Your task to perform on an android device: turn on the 24-hour format for clock Image 0: 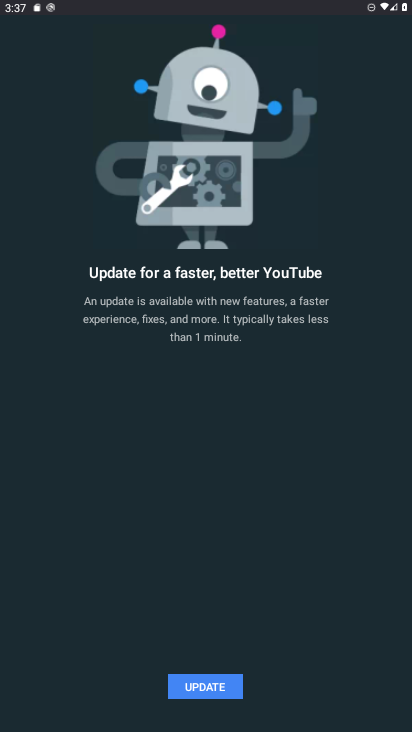
Step 0: press home button
Your task to perform on an android device: turn on the 24-hour format for clock Image 1: 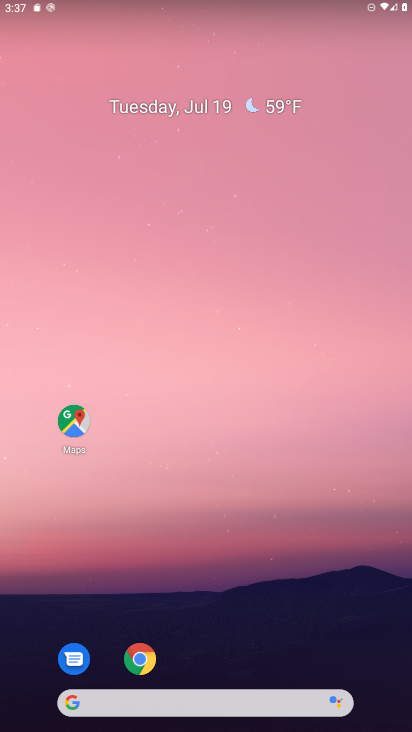
Step 1: drag from (216, 702) to (231, 181)
Your task to perform on an android device: turn on the 24-hour format for clock Image 2: 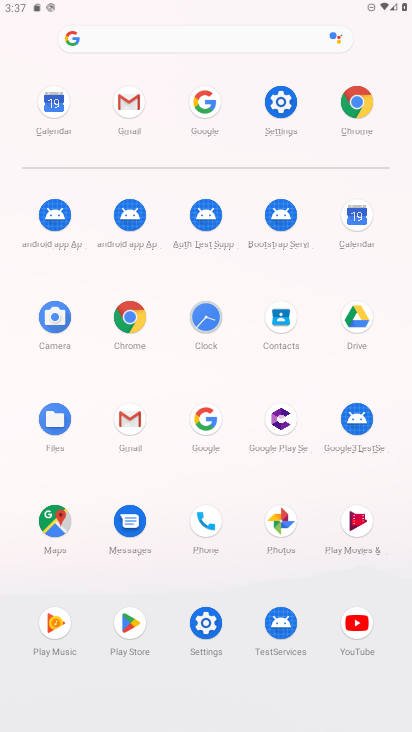
Step 2: click (207, 317)
Your task to perform on an android device: turn on the 24-hour format for clock Image 3: 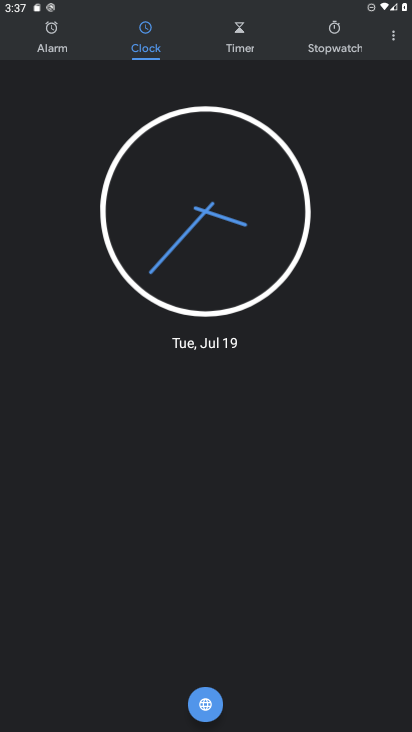
Step 3: click (394, 36)
Your task to perform on an android device: turn on the 24-hour format for clock Image 4: 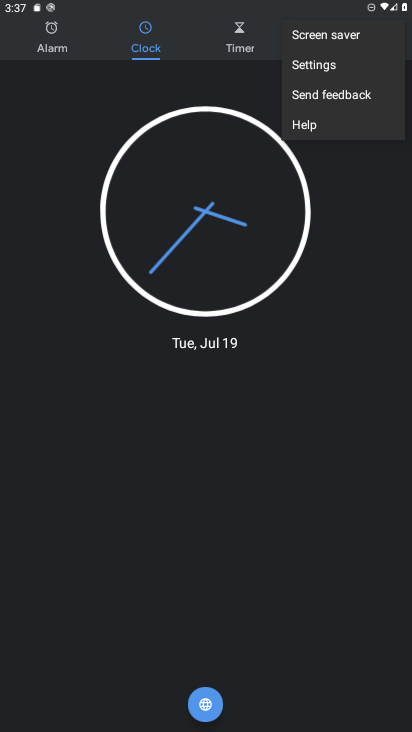
Step 4: click (325, 66)
Your task to perform on an android device: turn on the 24-hour format for clock Image 5: 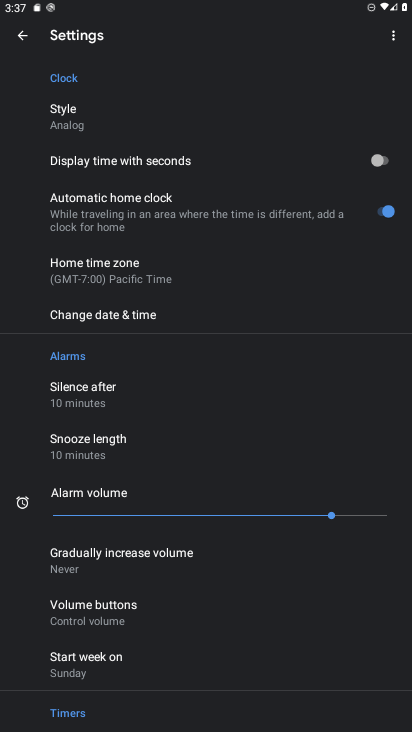
Step 5: click (114, 314)
Your task to perform on an android device: turn on the 24-hour format for clock Image 6: 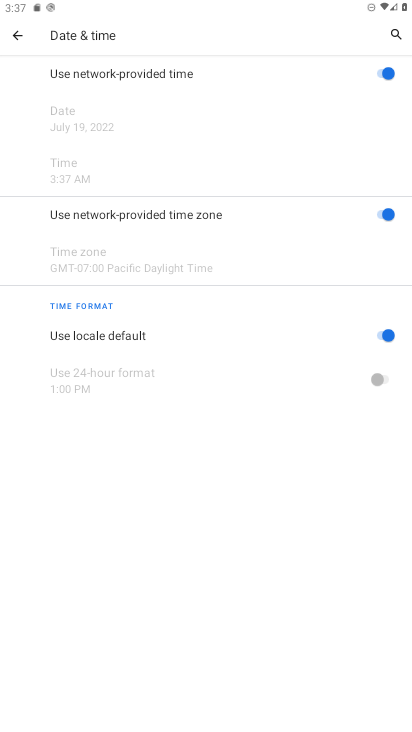
Step 6: click (386, 336)
Your task to perform on an android device: turn on the 24-hour format for clock Image 7: 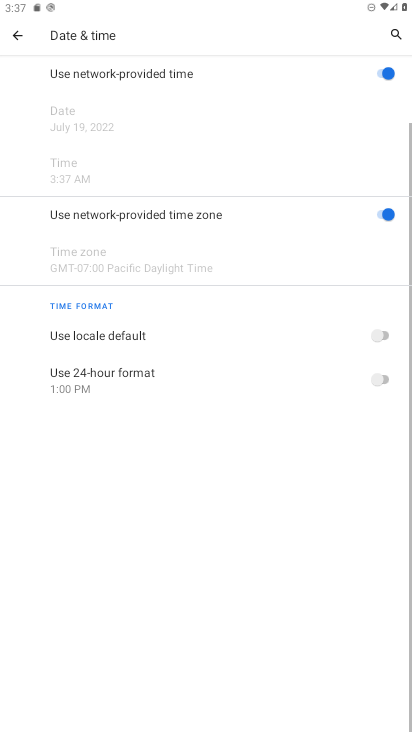
Step 7: click (388, 385)
Your task to perform on an android device: turn on the 24-hour format for clock Image 8: 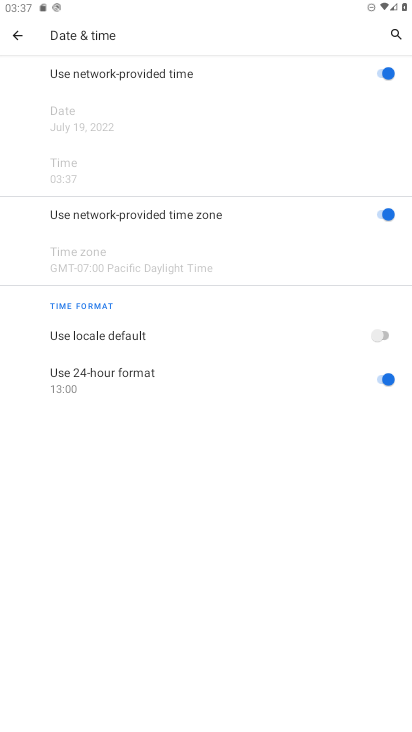
Step 8: task complete